Your task to perform on an android device: What's the weather? Image 0: 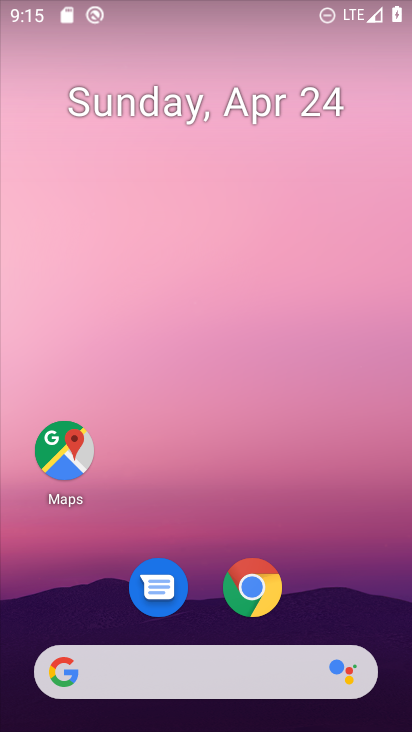
Step 0: drag from (357, 579) to (355, 0)
Your task to perform on an android device: What's the weather? Image 1: 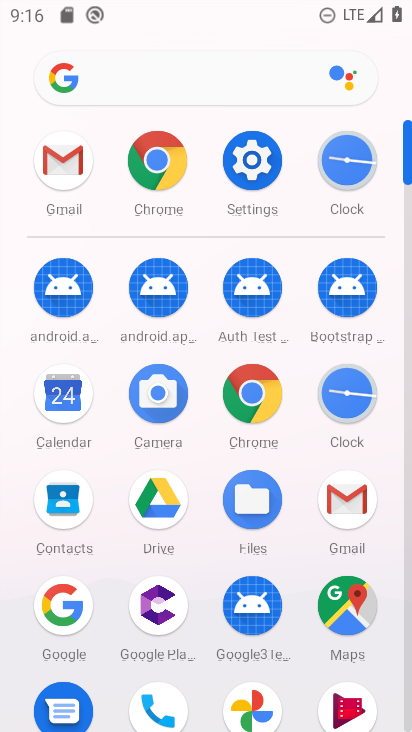
Step 1: click (177, 168)
Your task to perform on an android device: What's the weather? Image 2: 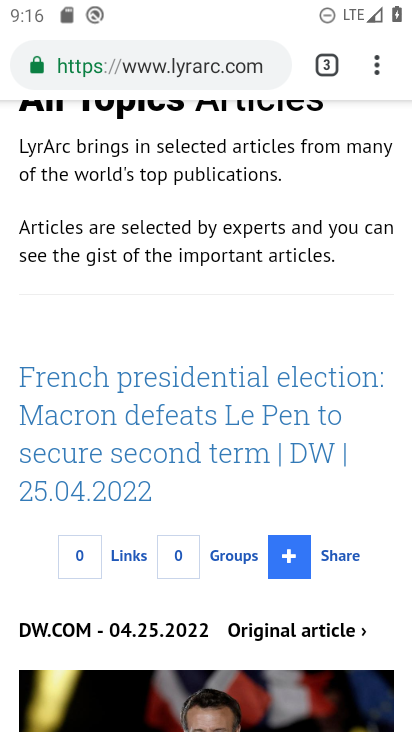
Step 2: click (218, 49)
Your task to perform on an android device: What's the weather? Image 3: 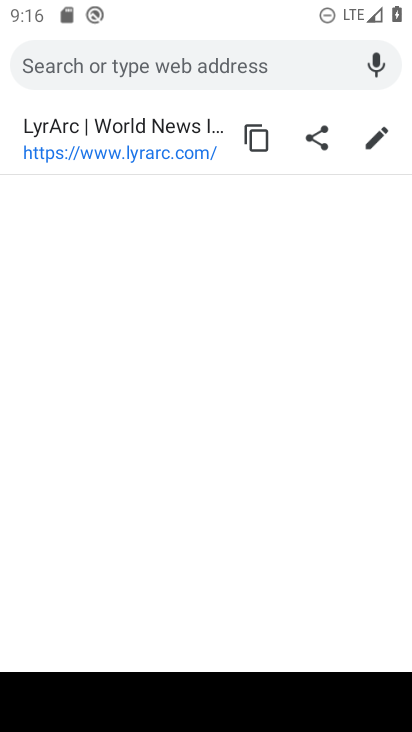
Step 3: type "what's the weather"
Your task to perform on an android device: What's the weather? Image 4: 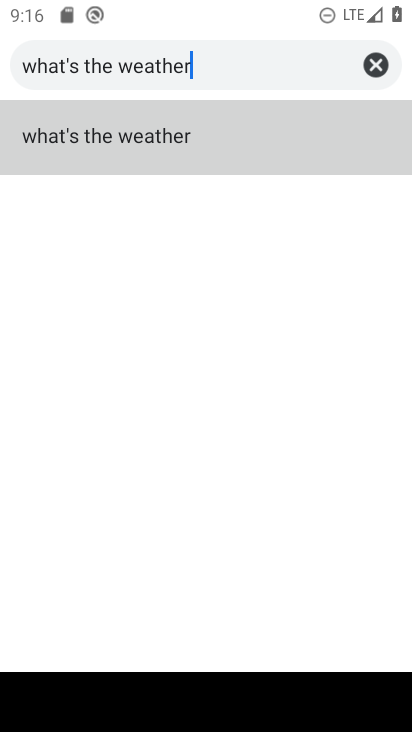
Step 4: click (145, 144)
Your task to perform on an android device: What's the weather? Image 5: 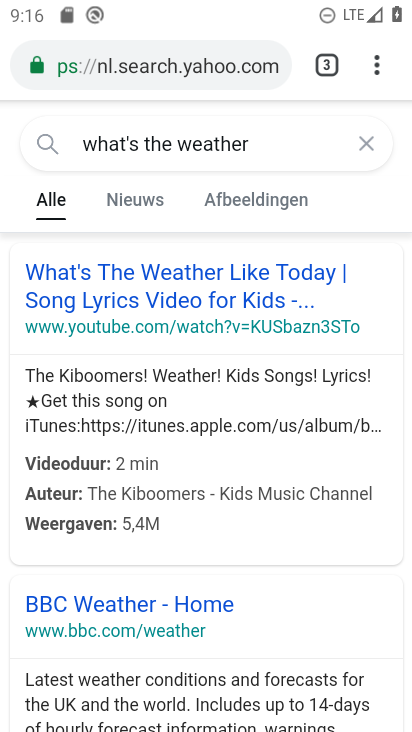
Step 5: click (141, 290)
Your task to perform on an android device: What's the weather? Image 6: 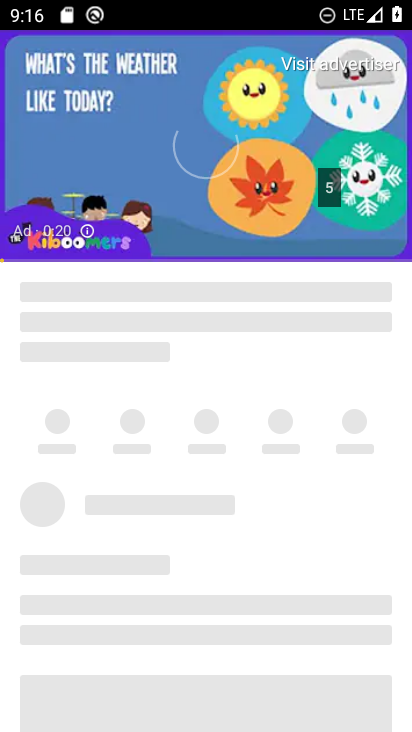
Step 6: task complete